Your task to perform on an android device: Open CNN.com Image 0: 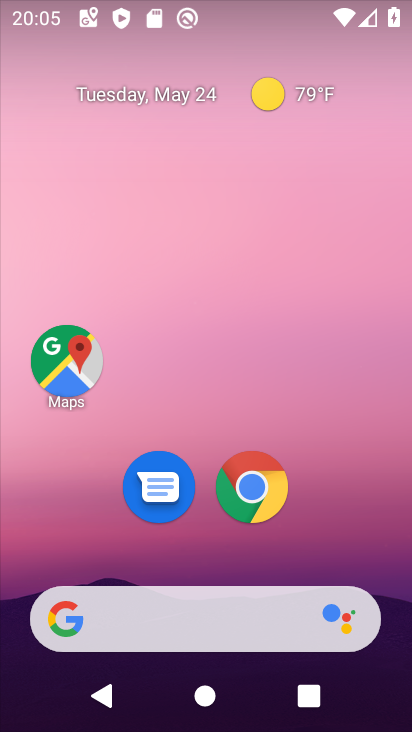
Step 0: click (229, 497)
Your task to perform on an android device: Open CNN.com Image 1: 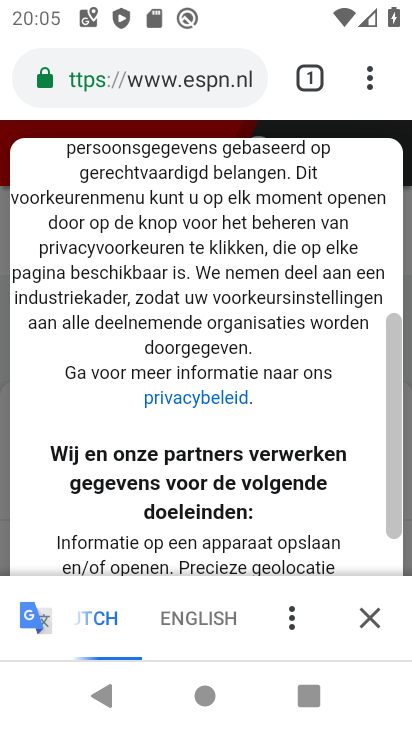
Step 1: click (180, 80)
Your task to perform on an android device: Open CNN.com Image 2: 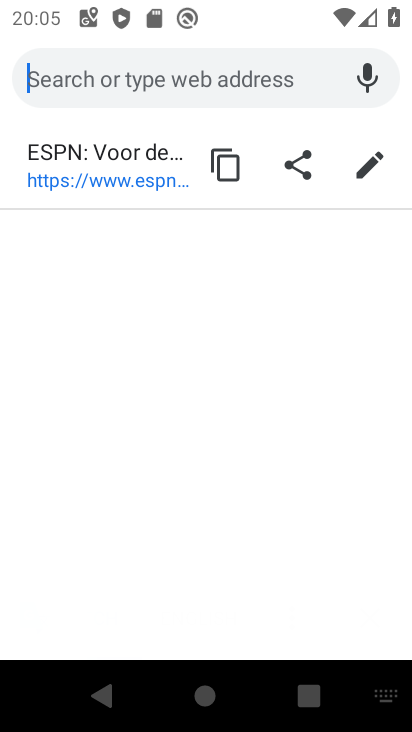
Step 2: type "CNN.com"
Your task to perform on an android device: Open CNN.com Image 3: 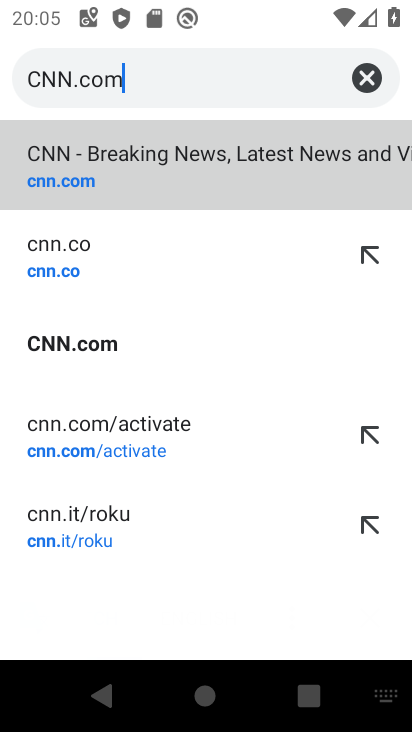
Step 3: type ""
Your task to perform on an android device: Open CNN.com Image 4: 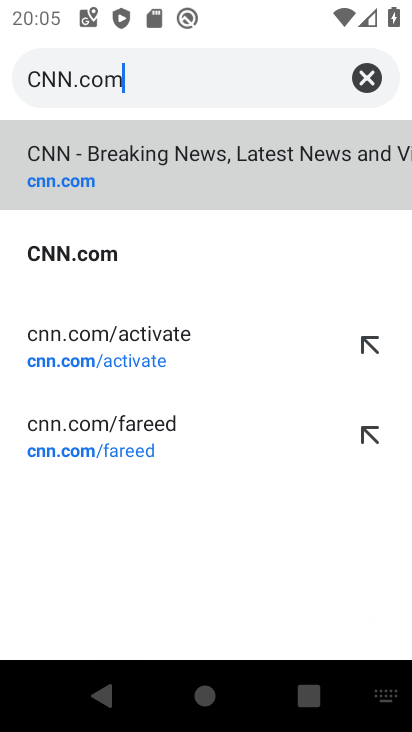
Step 4: click (188, 154)
Your task to perform on an android device: Open CNN.com Image 5: 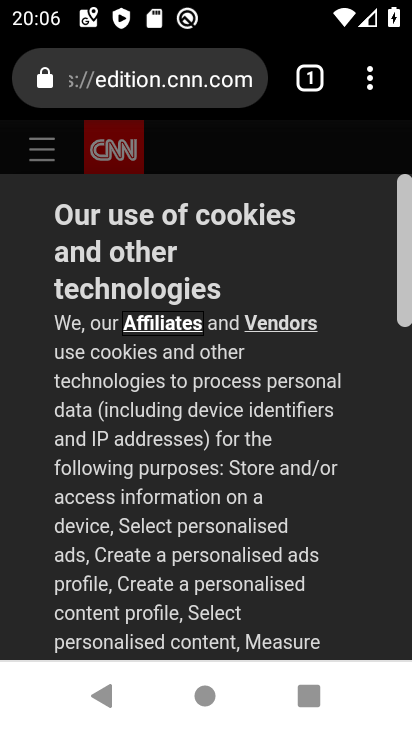
Step 5: task complete